Your task to perform on an android device: Go to privacy settings Image 0: 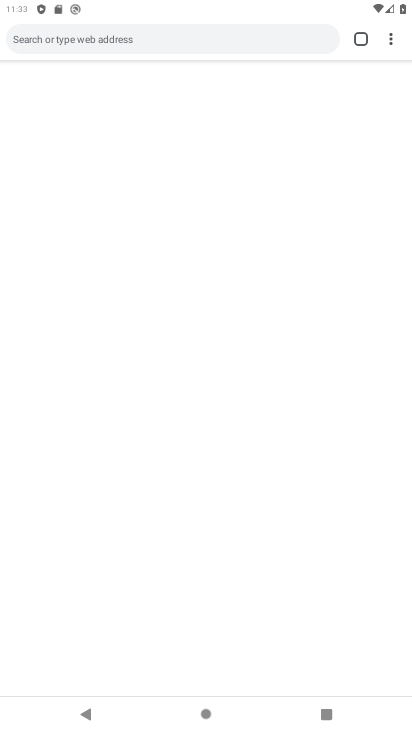
Step 0: click (195, 165)
Your task to perform on an android device: Go to privacy settings Image 1: 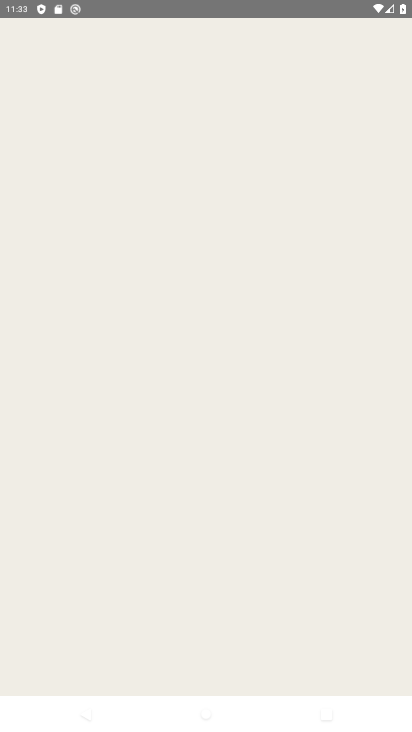
Step 1: press home button
Your task to perform on an android device: Go to privacy settings Image 2: 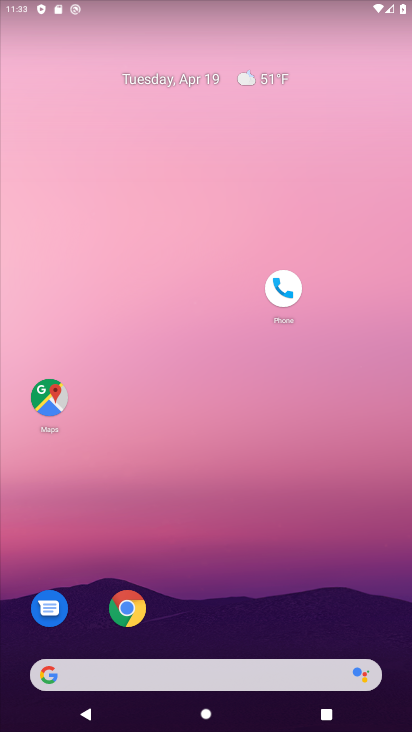
Step 2: drag from (200, 627) to (204, 251)
Your task to perform on an android device: Go to privacy settings Image 3: 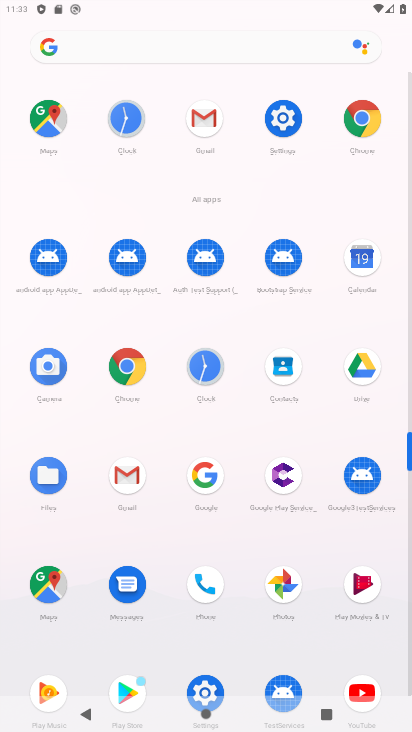
Step 3: click (216, 691)
Your task to perform on an android device: Go to privacy settings Image 4: 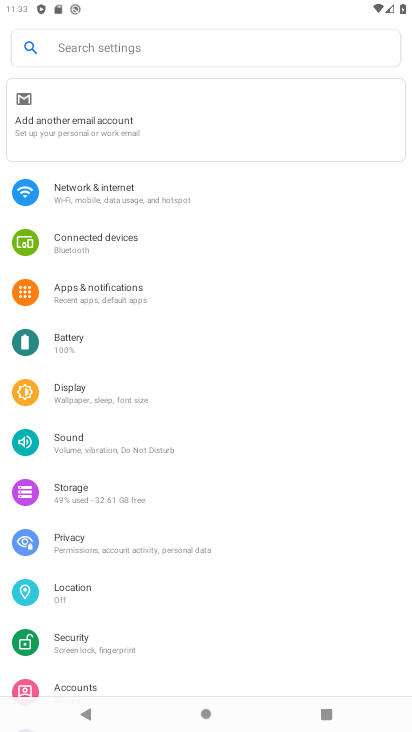
Step 4: click (103, 543)
Your task to perform on an android device: Go to privacy settings Image 5: 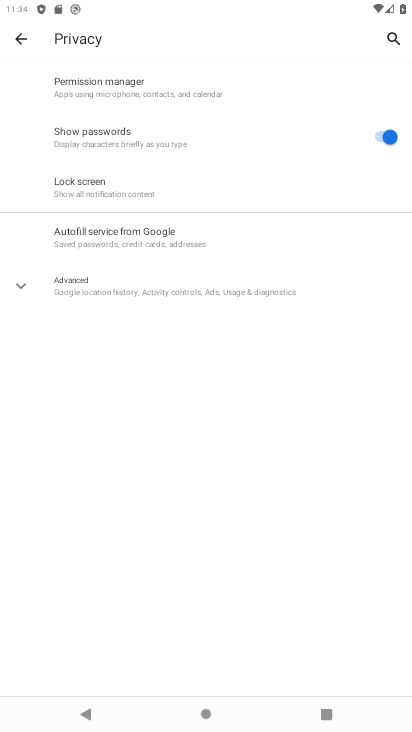
Step 5: task complete